Your task to perform on an android device: Do I have any events this weekend? Image 0: 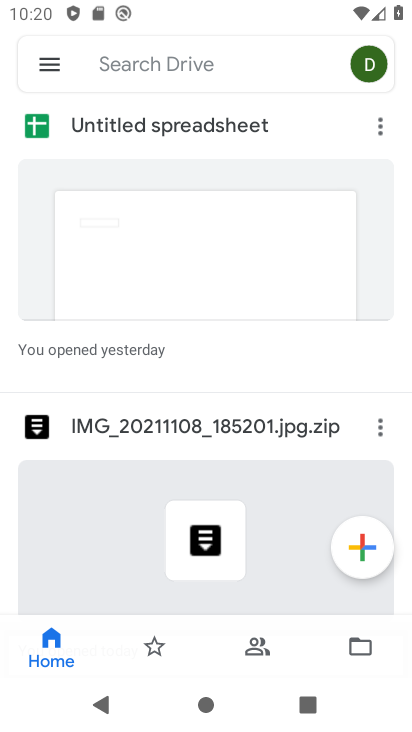
Step 0: press home button
Your task to perform on an android device: Do I have any events this weekend? Image 1: 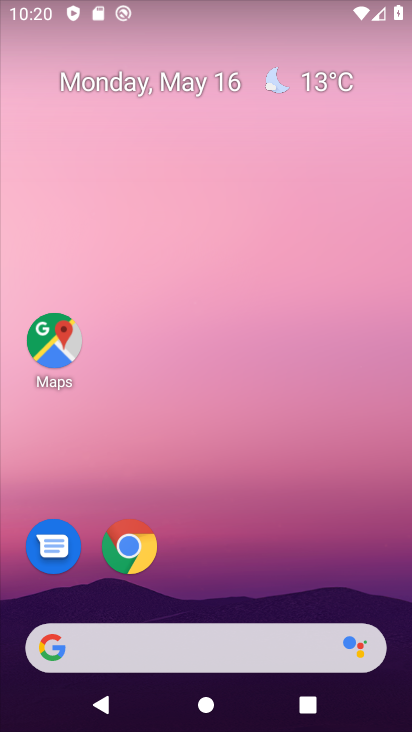
Step 1: drag from (259, 503) to (274, 62)
Your task to perform on an android device: Do I have any events this weekend? Image 2: 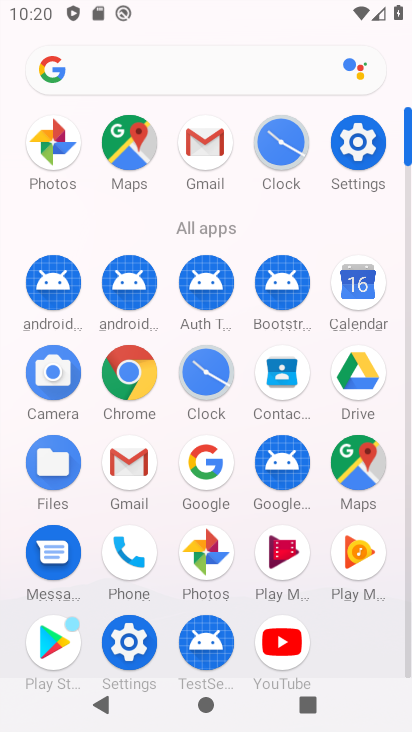
Step 2: click (367, 283)
Your task to perform on an android device: Do I have any events this weekend? Image 3: 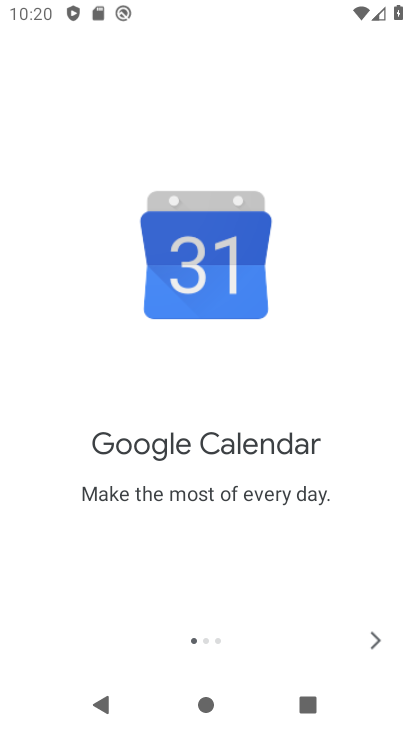
Step 3: click (371, 640)
Your task to perform on an android device: Do I have any events this weekend? Image 4: 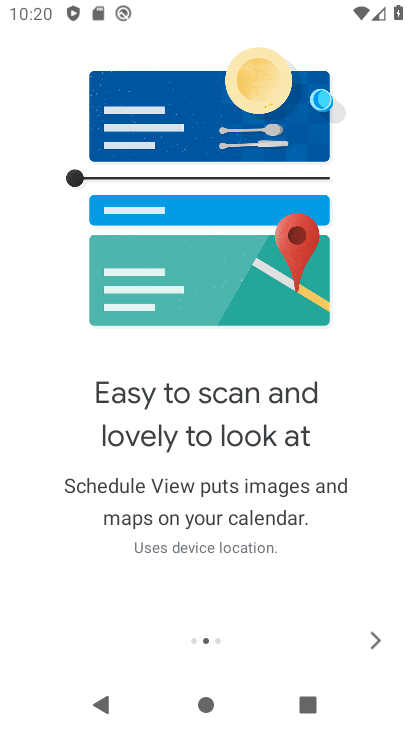
Step 4: click (371, 640)
Your task to perform on an android device: Do I have any events this weekend? Image 5: 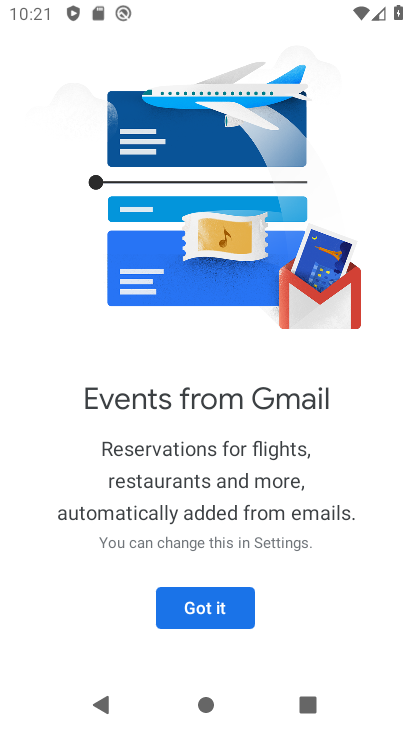
Step 5: click (226, 615)
Your task to perform on an android device: Do I have any events this weekend? Image 6: 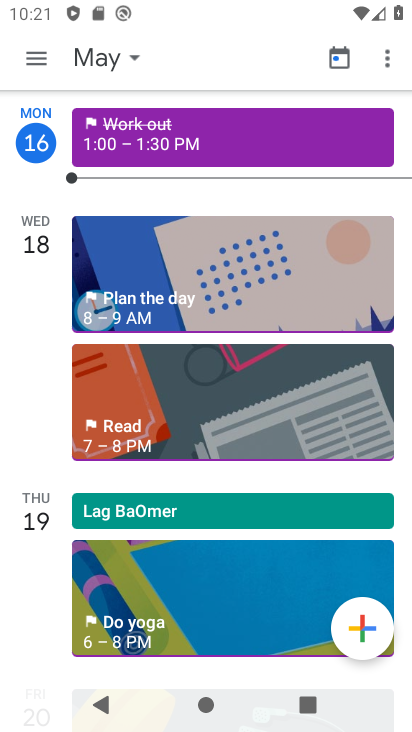
Step 6: click (88, 45)
Your task to perform on an android device: Do I have any events this weekend? Image 7: 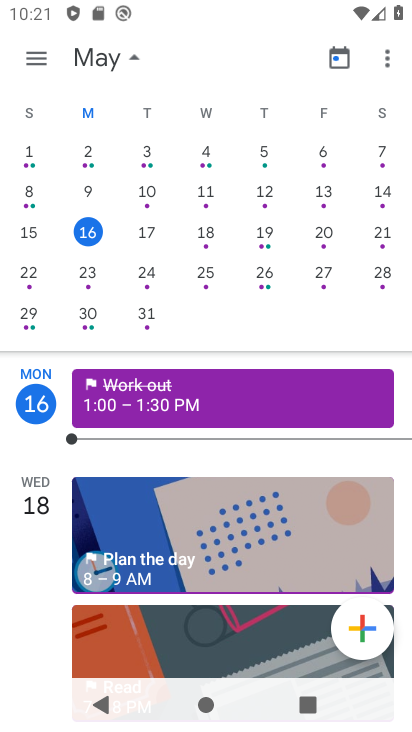
Step 7: task complete